Your task to perform on an android device: turn off data saver in the chrome app Image 0: 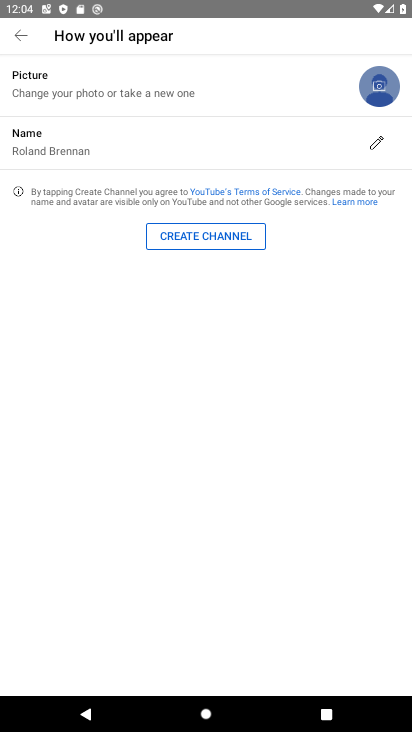
Step 0: press home button
Your task to perform on an android device: turn off data saver in the chrome app Image 1: 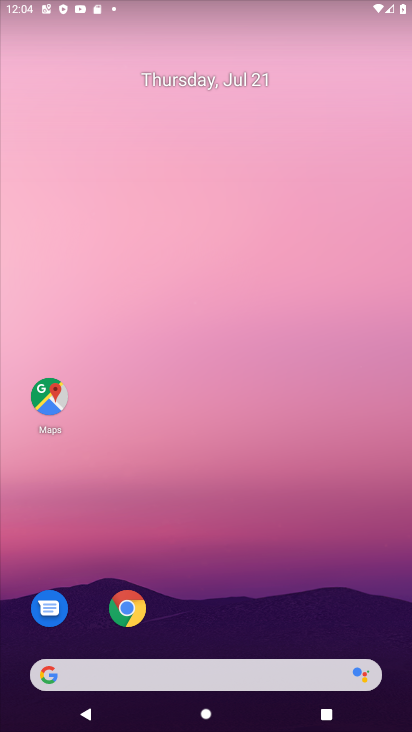
Step 1: drag from (356, 599) to (156, 58)
Your task to perform on an android device: turn off data saver in the chrome app Image 2: 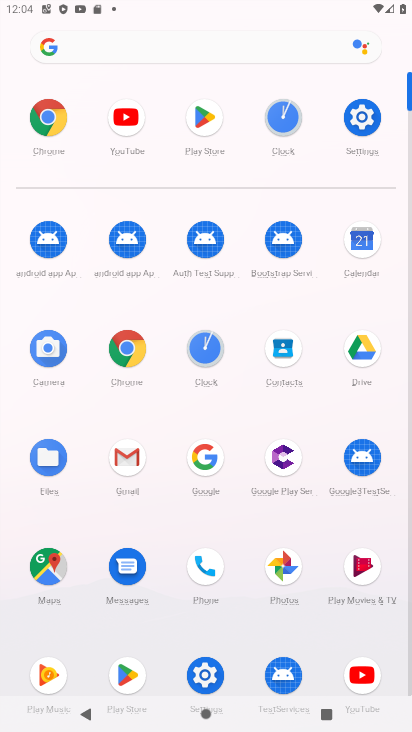
Step 2: click (130, 341)
Your task to perform on an android device: turn off data saver in the chrome app Image 3: 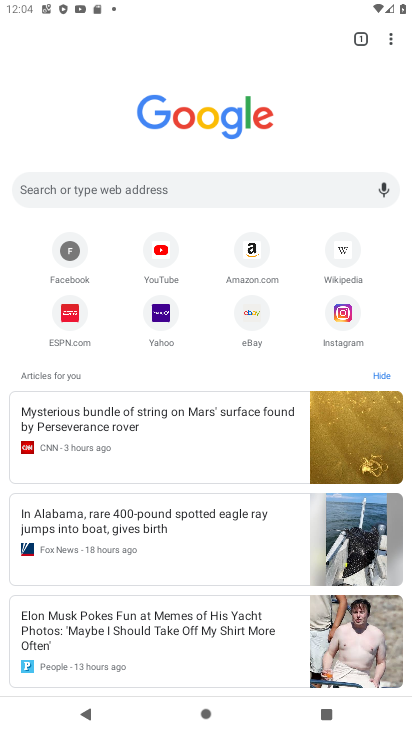
Step 3: click (384, 34)
Your task to perform on an android device: turn off data saver in the chrome app Image 4: 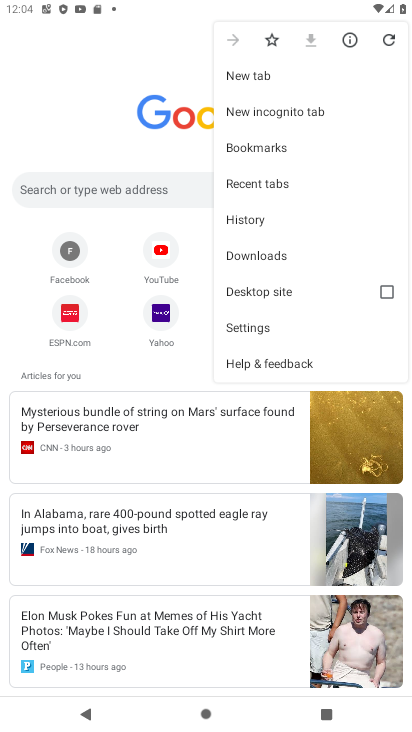
Step 4: click (258, 331)
Your task to perform on an android device: turn off data saver in the chrome app Image 5: 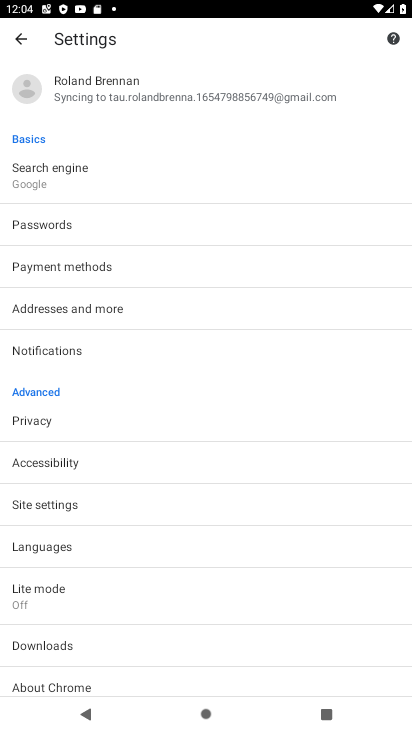
Step 5: click (77, 595)
Your task to perform on an android device: turn off data saver in the chrome app Image 6: 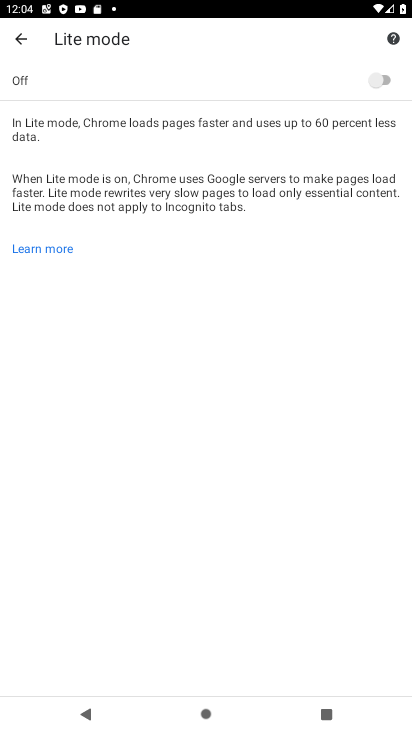
Step 6: task complete